Your task to perform on an android device: turn on showing notifications on the lock screen Image 0: 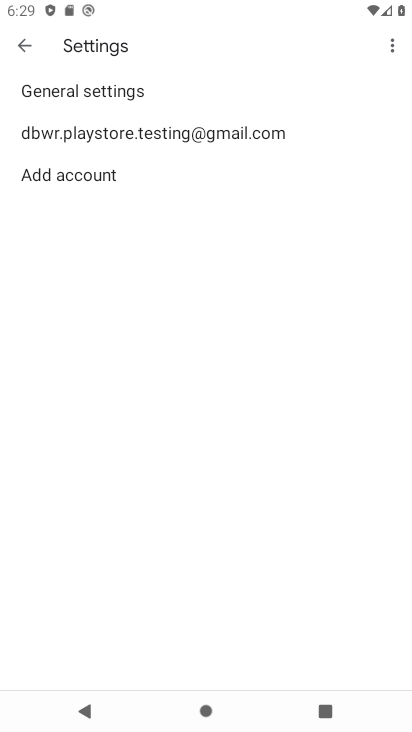
Step 0: press home button
Your task to perform on an android device: turn on showing notifications on the lock screen Image 1: 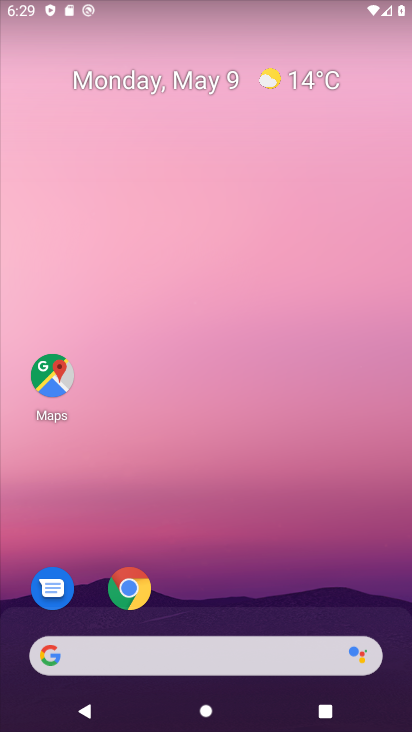
Step 1: drag from (308, 609) to (310, 263)
Your task to perform on an android device: turn on showing notifications on the lock screen Image 2: 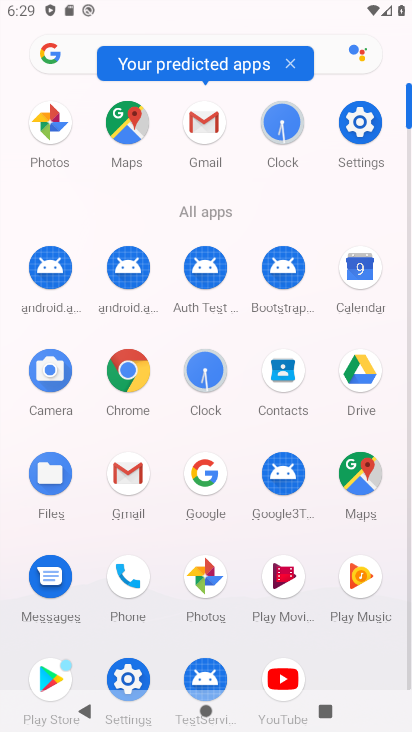
Step 2: click (359, 136)
Your task to perform on an android device: turn on showing notifications on the lock screen Image 3: 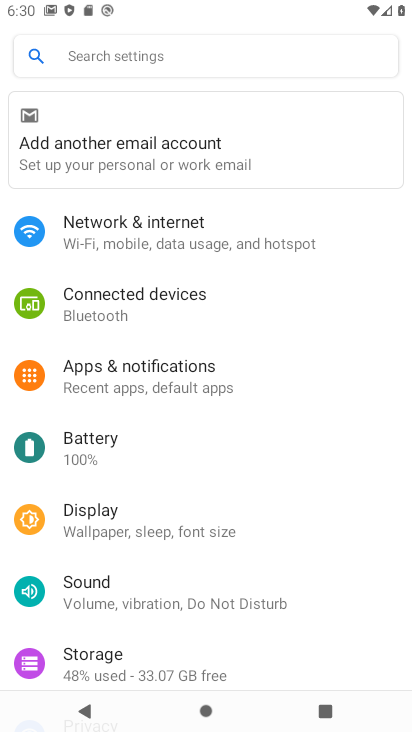
Step 3: click (222, 385)
Your task to perform on an android device: turn on showing notifications on the lock screen Image 4: 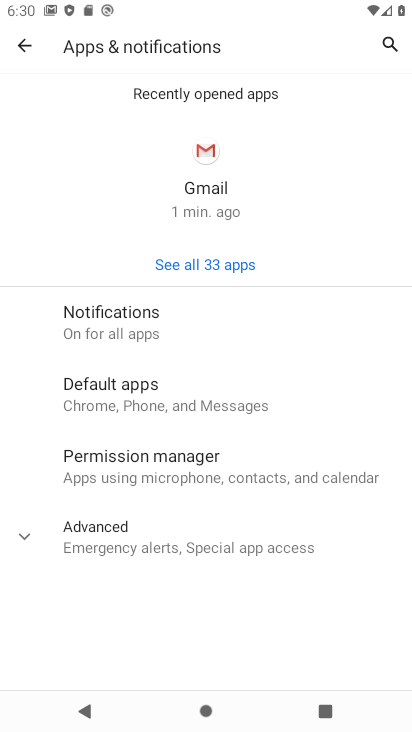
Step 4: click (243, 334)
Your task to perform on an android device: turn on showing notifications on the lock screen Image 5: 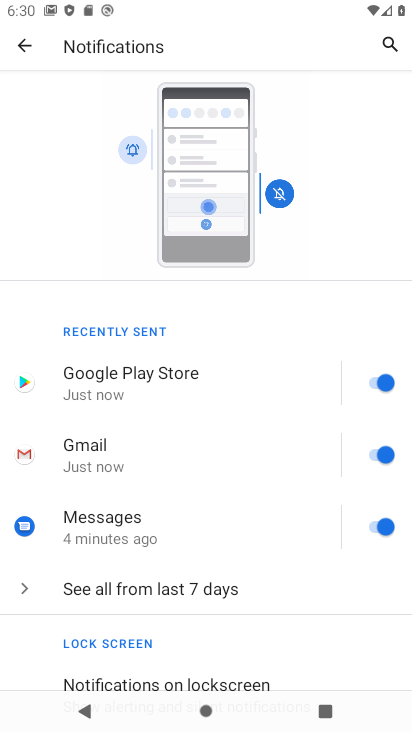
Step 5: drag from (173, 633) to (253, 367)
Your task to perform on an android device: turn on showing notifications on the lock screen Image 6: 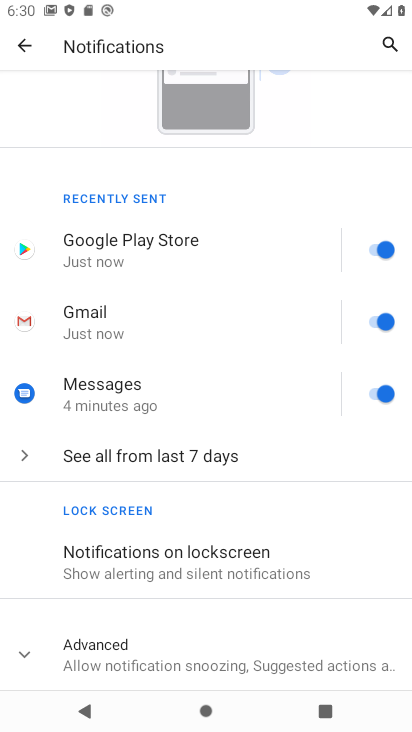
Step 6: click (175, 554)
Your task to perform on an android device: turn on showing notifications on the lock screen Image 7: 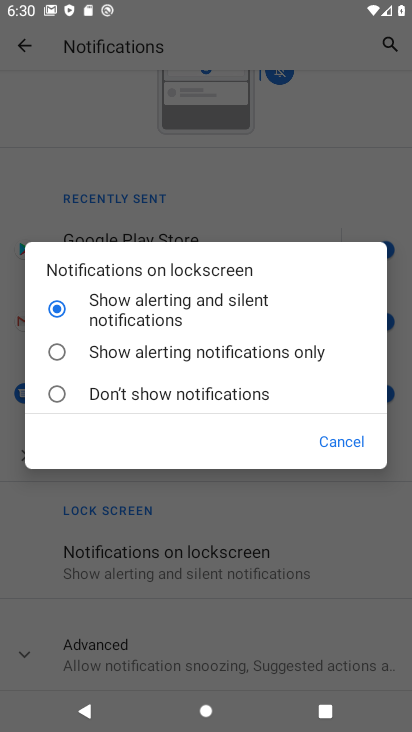
Step 7: task complete